Your task to perform on an android device: When is my next appointment? Image 0: 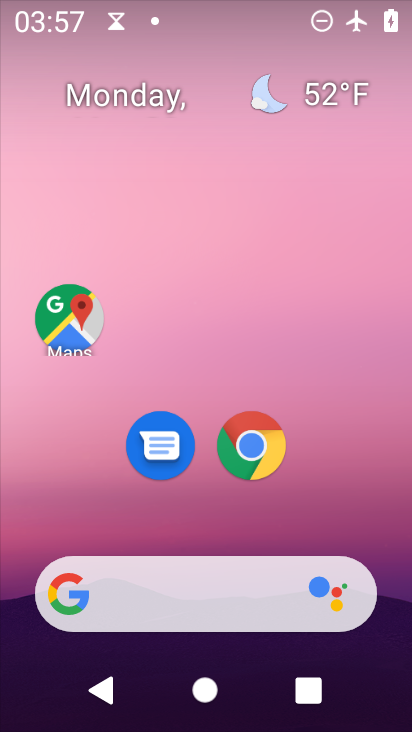
Step 0: drag from (208, 527) to (230, 7)
Your task to perform on an android device: When is my next appointment? Image 1: 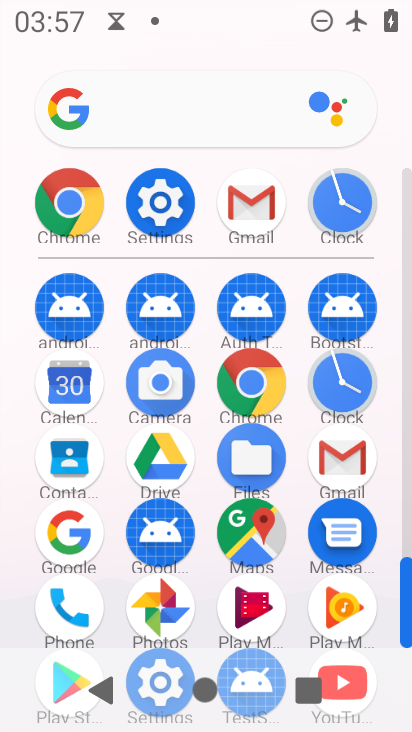
Step 1: click (75, 386)
Your task to perform on an android device: When is my next appointment? Image 2: 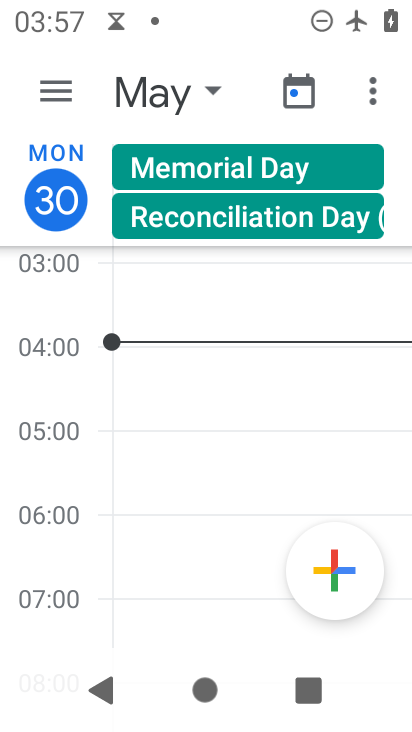
Step 2: click (57, 87)
Your task to perform on an android device: When is my next appointment? Image 3: 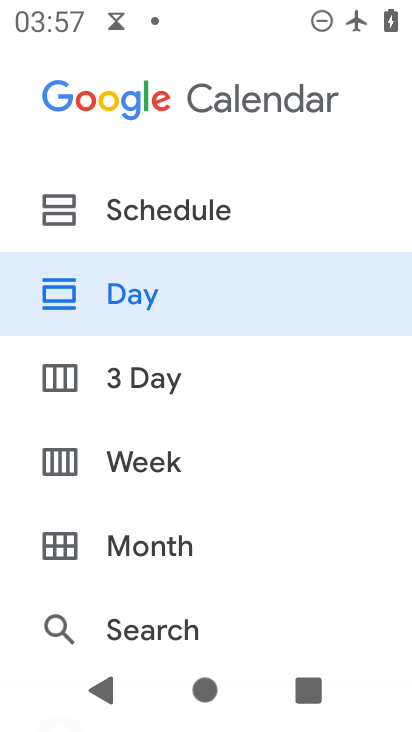
Step 3: click (158, 210)
Your task to perform on an android device: When is my next appointment? Image 4: 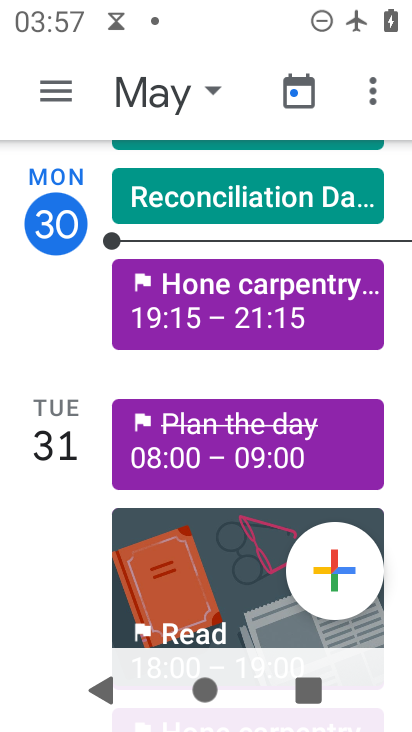
Step 4: task complete